Your task to perform on an android device: empty trash in the gmail app Image 0: 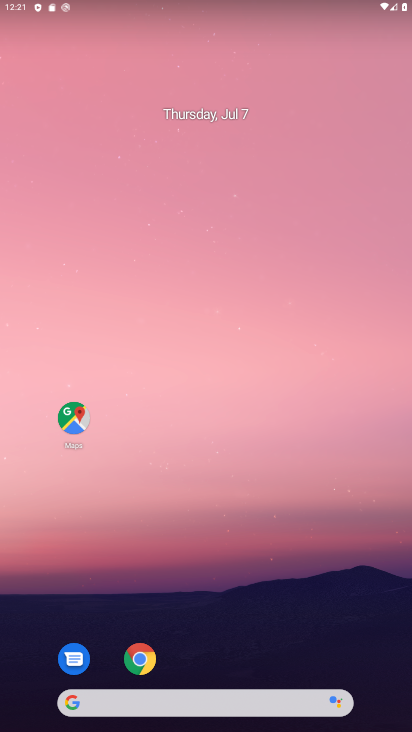
Step 0: drag from (261, 571) to (206, 248)
Your task to perform on an android device: empty trash in the gmail app Image 1: 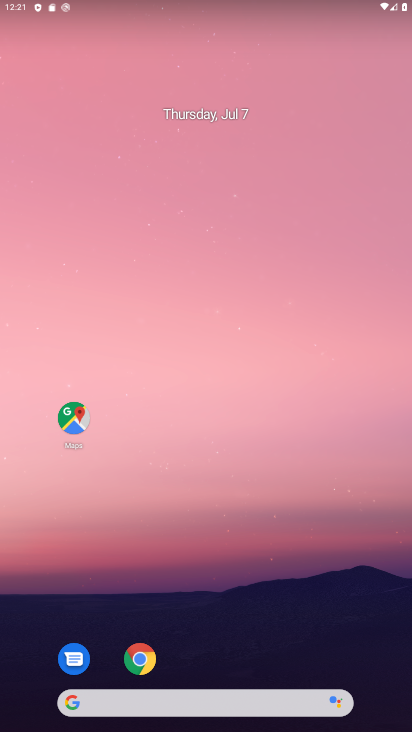
Step 1: drag from (205, 589) to (202, 132)
Your task to perform on an android device: empty trash in the gmail app Image 2: 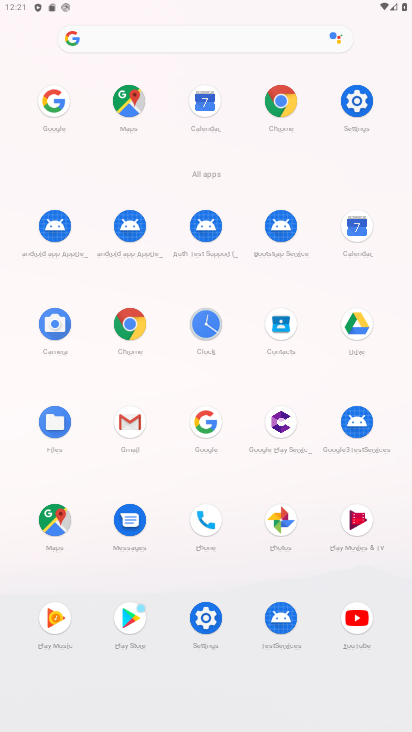
Step 2: click (128, 421)
Your task to perform on an android device: empty trash in the gmail app Image 3: 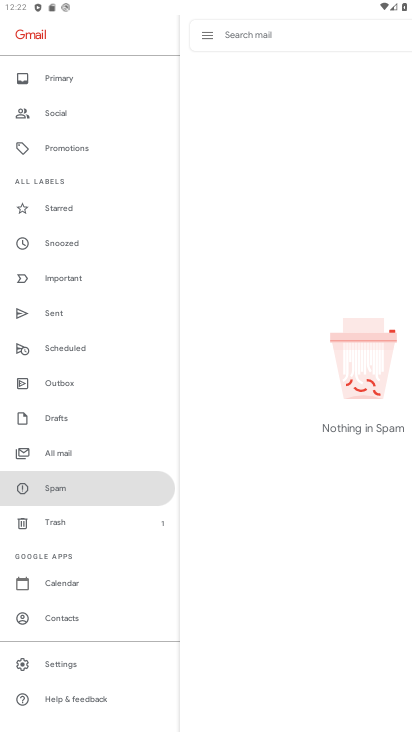
Step 3: click (57, 526)
Your task to perform on an android device: empty trash in the gmail app Image 4: 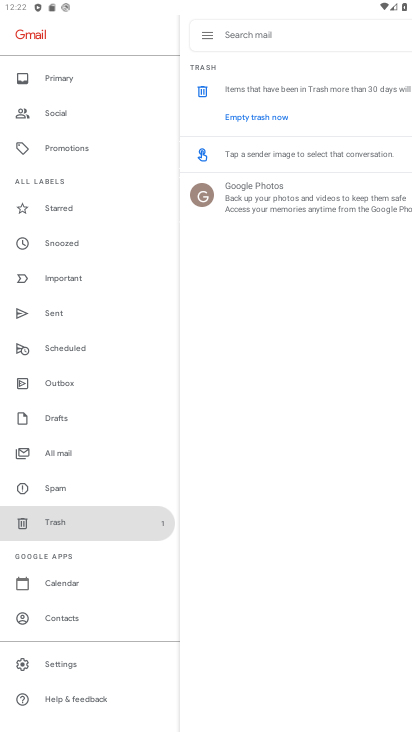
Step 4: click (231, 114)
Your task to perform on an android device: empty trash in the gmail app Image 5: 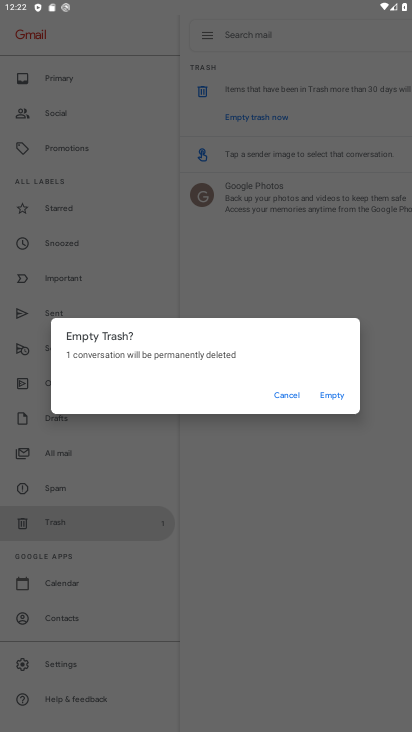
Step 5: click (334, 396)
Your task to perform on an android device: empty trash in the gmail app Image 6: 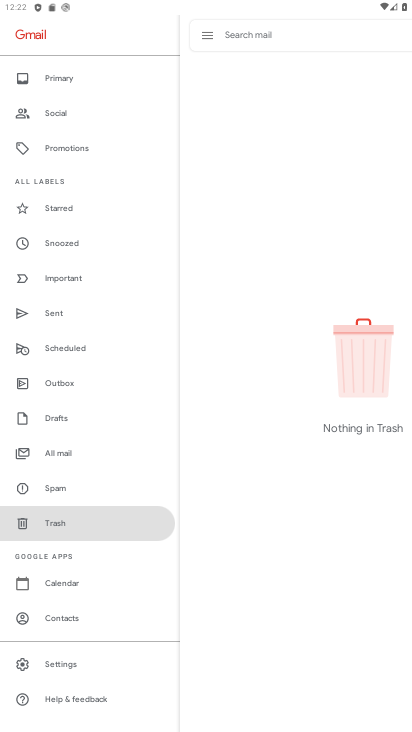
Step 6: task complete